Your task to perform on an android device: all mails in gmail Image 0: 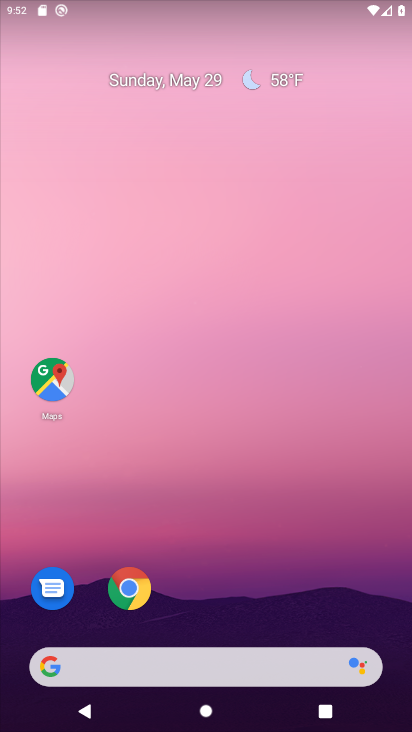
Step 0: drag from (283, 679) to (229, 367)
Your task to perform on an android device: all mails in gmail Image 1: 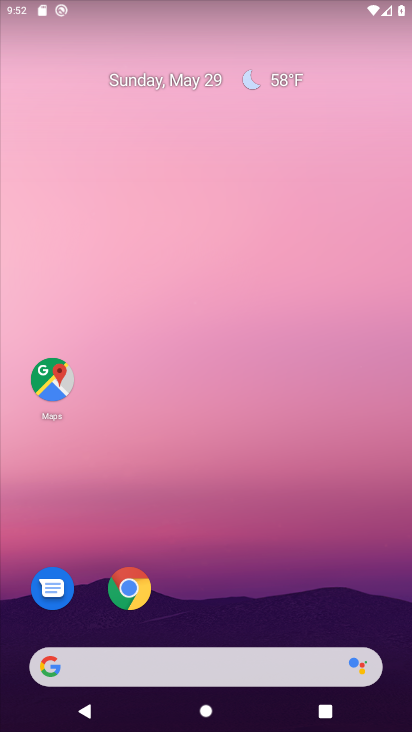
Step 1: drag from (236, 441) to (184, 53)
Your task to perform on an android device: all mails in gmail Image 2: 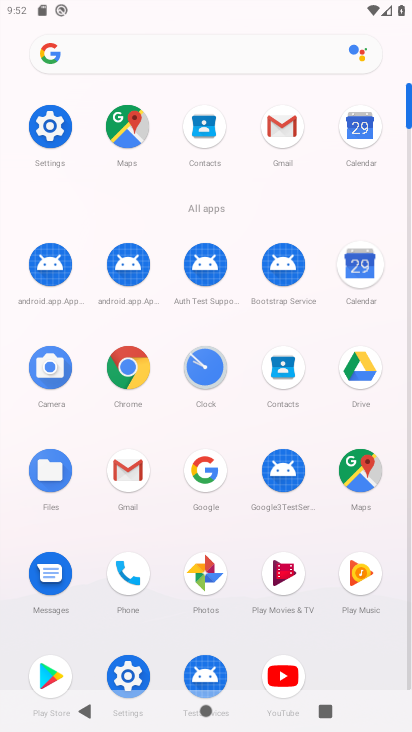
Step 2: click (109, 460)
Your task to perform on an android device: all mails in gmail Image 3: 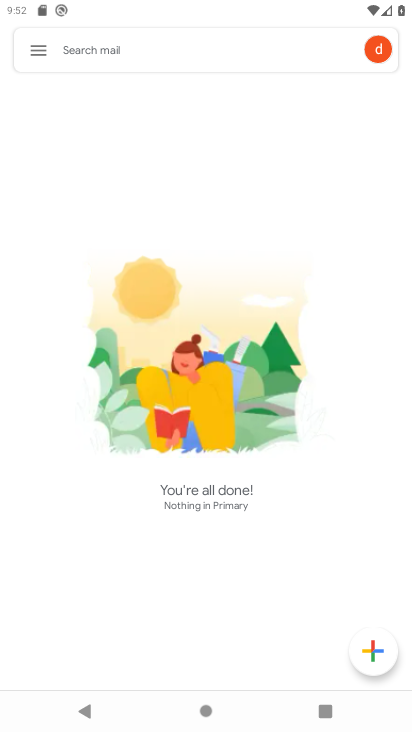
Step 3: click (39, 50)
Your task to perform on an android device: all mails in gmail Image 4: 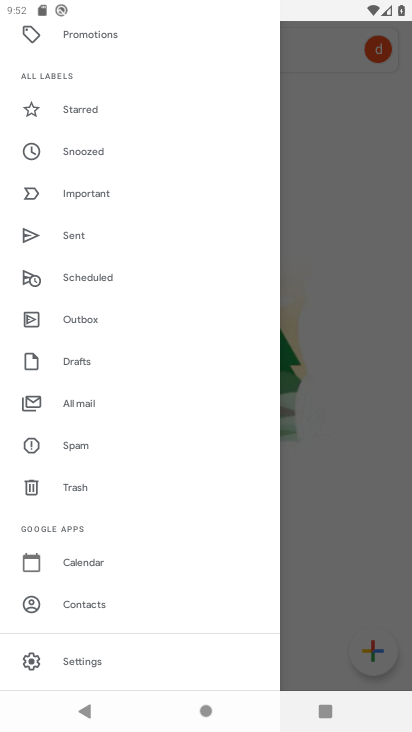
Step 4: click (74, 410)
Your task to perform on an android device: all mails in gmail Image 5: 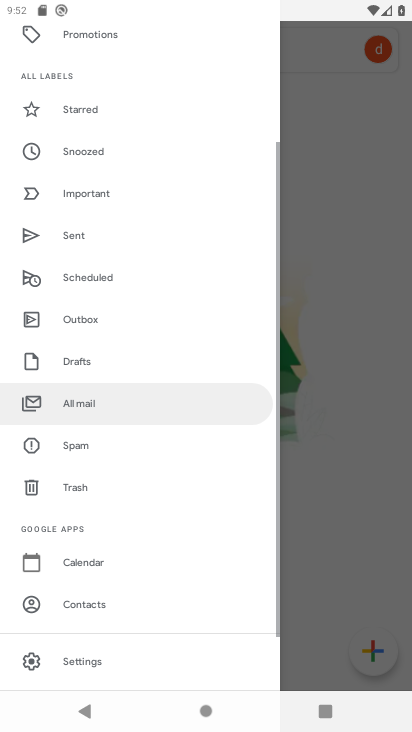
Step 5: click (73, 409)
Your task to perform on an android device: all mails in gmail Image 6: 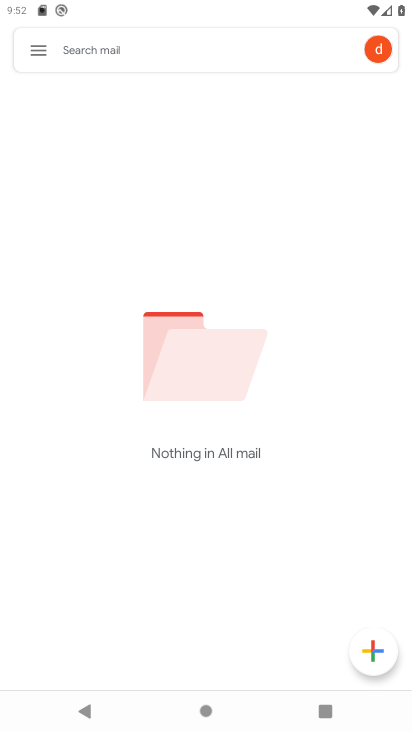
Step 6: task complete